Your task to perform on an android device: Turn off the flashlight Image 0: 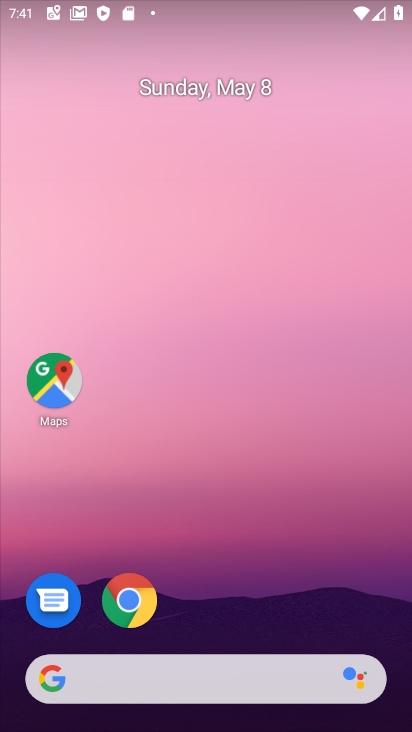
Step 0: drag from (307, 709) to (260, 277)
Your task to perform on an android device: Turn off the flashlight Image 1: 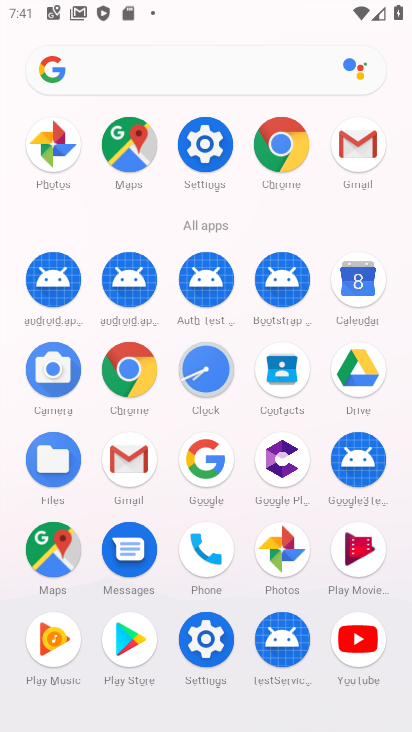
Step 1: click (207, 163)
Your task to perform on an android device: Turn off the flashlight Image 2: 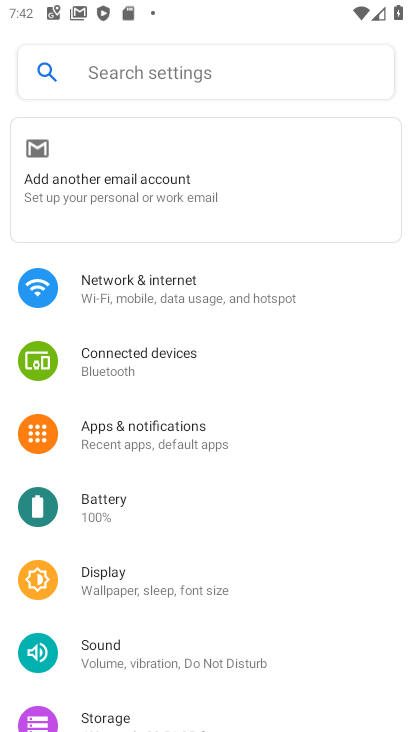
Step 2: click (167, 88)
Your task to perform on an android device: Turn off the flashlight Image 3: 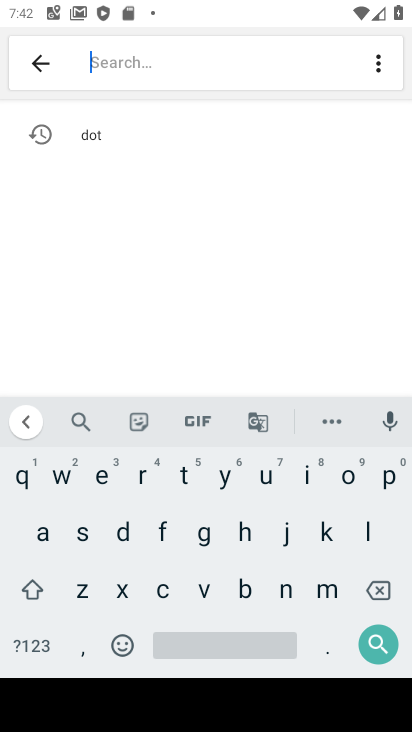
Step 3: click (160, 528)
Your task to perform on an android device: Turn off the flashlight Image 4: 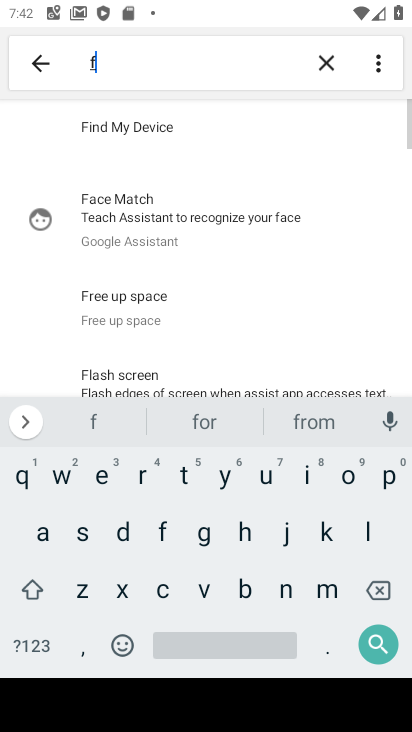
Step 4: click (366, 531)
Your task to perform on an android device: Turn off the flashlight Image 5: 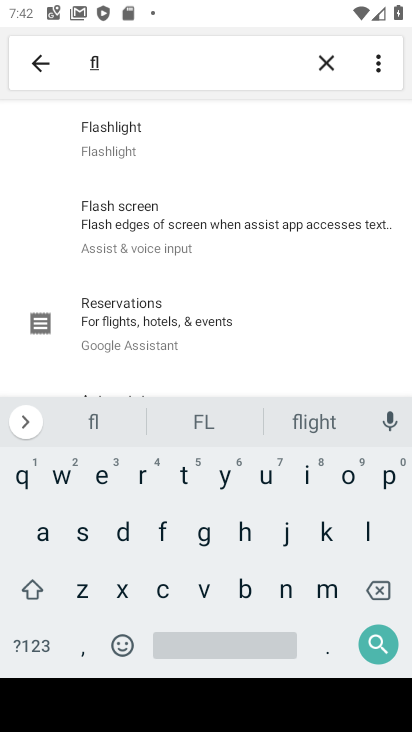
Step 5: task complete